Your task to perform on an android device: clear history in the chrome app Image 0: 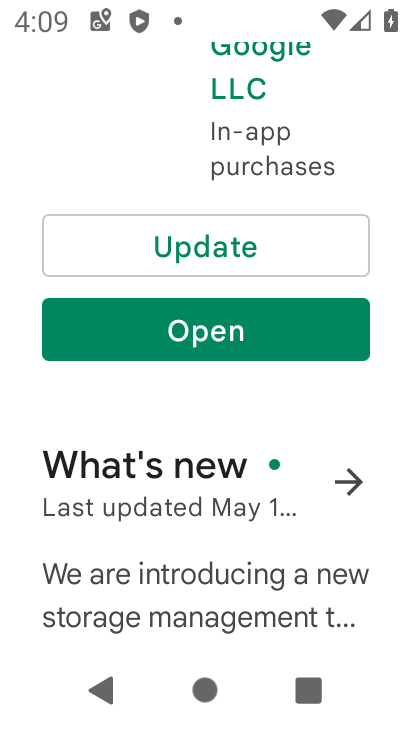
Step 0: press home button
Your task to perform on an android device: clear history in the chrome app Image 1: 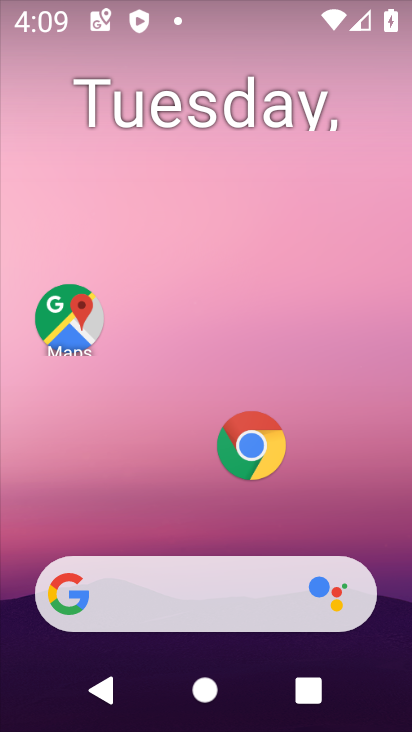
Step 1: click (259, 443)
Your task to perform on an android device: clear history in the chrome app Image 2: 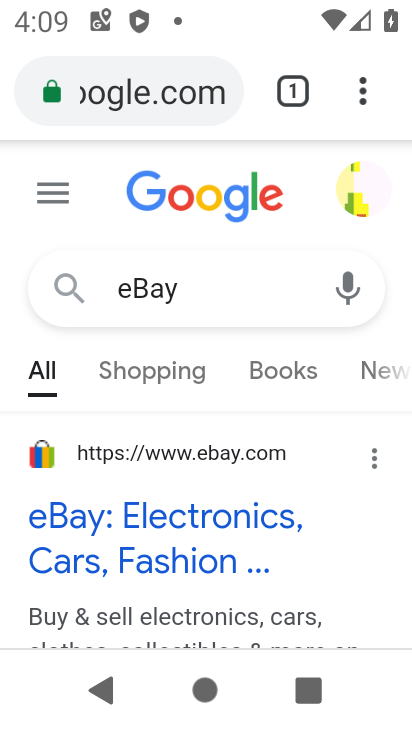
Step 2: click (364, 94)
Your task to perform on an android device: clear history in the chrome app Image 3: 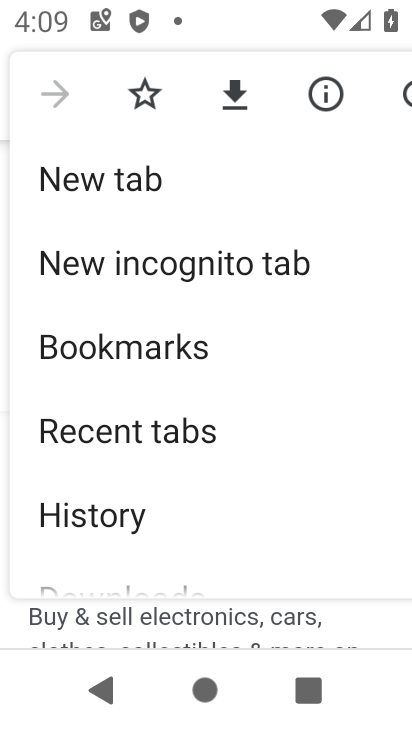
Step 3: click (128, 512)
Your task to perform on an android device: clear history in the chrome app Image 4: 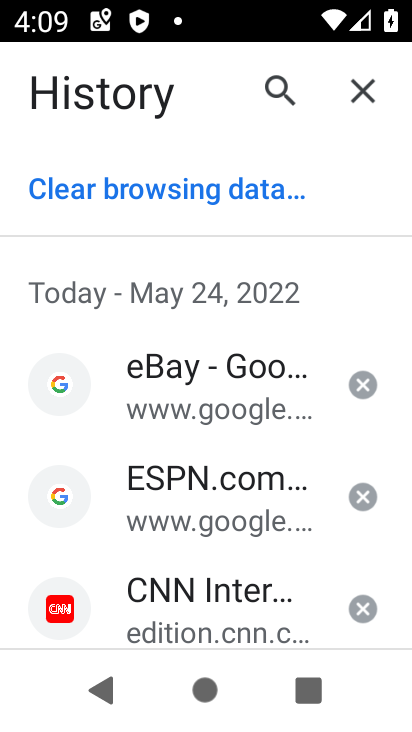
Step 4: click (154, 191)
Your task to perform on an android device: clear history in the chrome app Image 5: 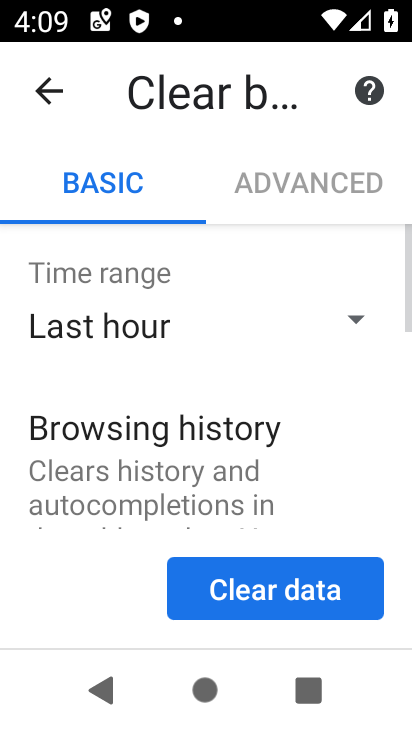
Step 5: drag from (226, 491) to (249, 170)
Your task to perform on an android device: clear history in the chrome app Image 6: 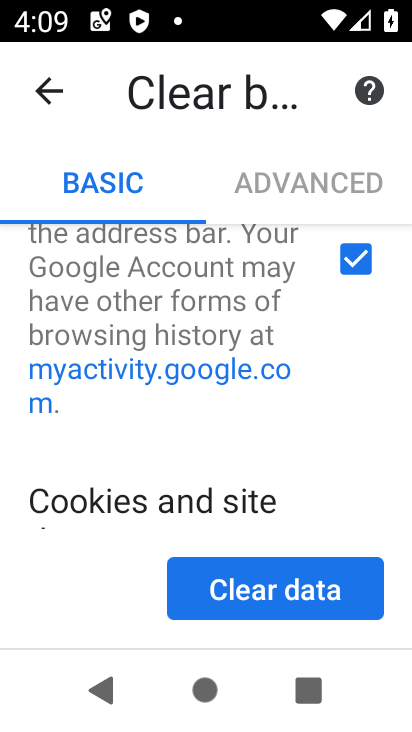
Step 6: drag from (232, 483) to (253, 129)
Your task to perform on an android device: clear history in the chrome app Image 7: 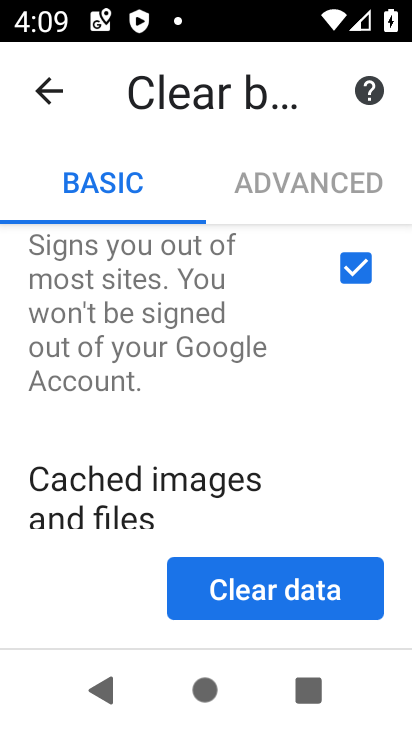
Step 7: drag from (218, 519) to (243, 233)
Your task to perform on an android device: clear history in the chrome app Image 8: 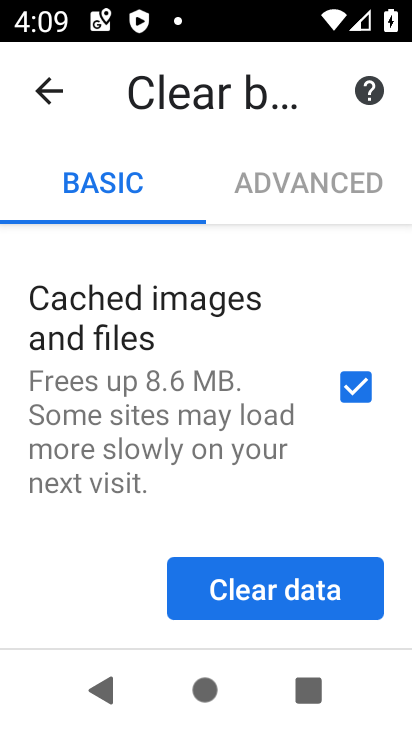
Step 8: click (307, 583)
Your task to perform on an android device: clear history in the chrome app Image 9: 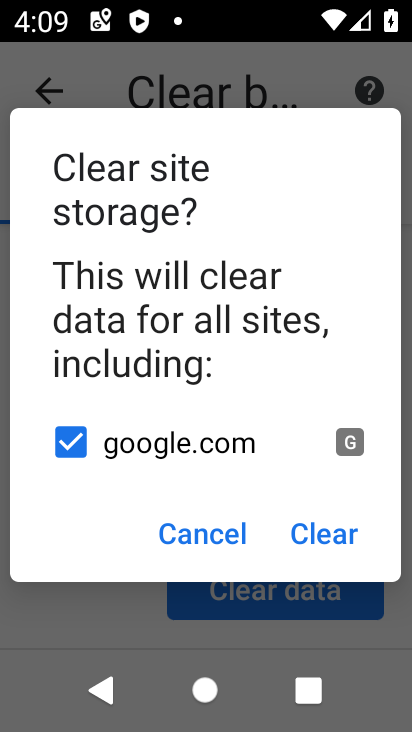
Step 9: click (322, 528)
Your task to perform on an android device: clear history in the chrome app Image 10: 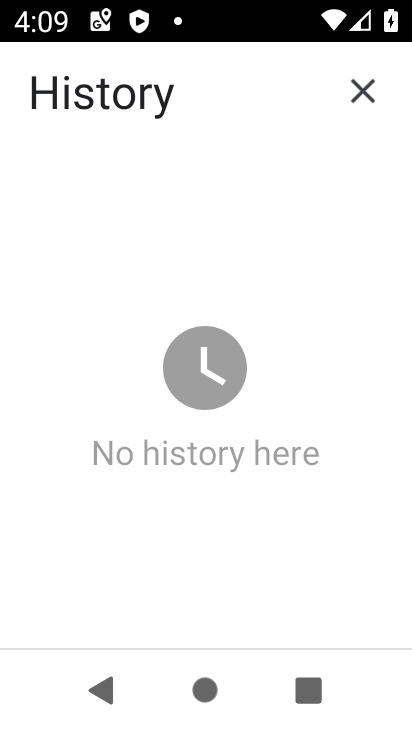
Step 10: task complete